Your task to perform on an android device: Open settings on Google Maps Image 0: 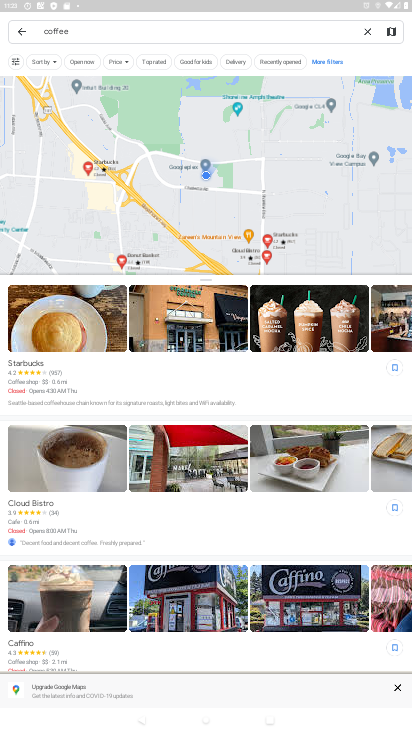
Step 0: press home button
Your task to perform on an android device: Open settings on Google Maps Image 1: 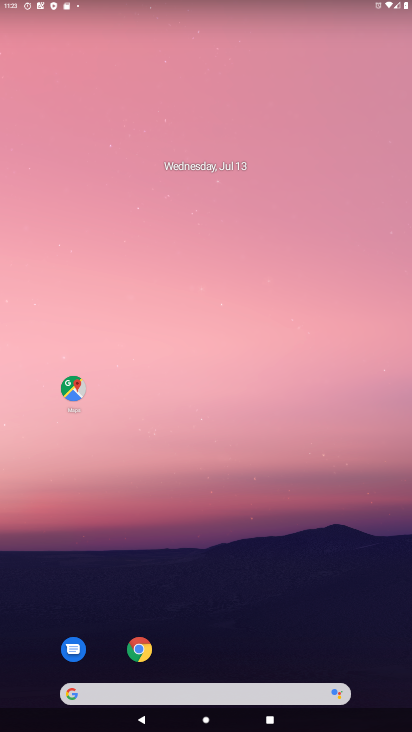
Step 1: click (67, 388)
Your task to perform on an android device: Open settings on Google Maps Image 2: 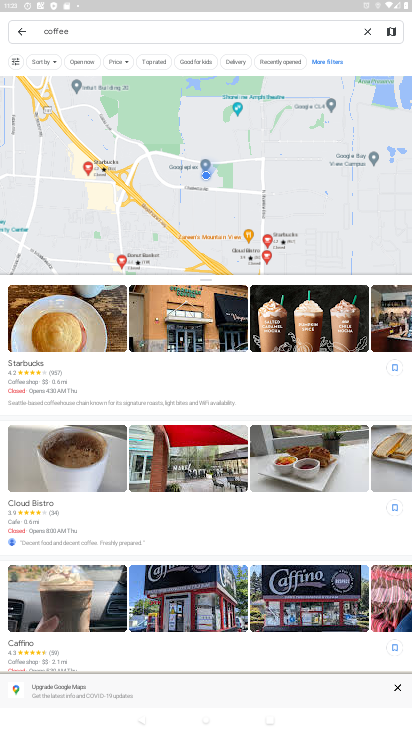
Step 2: press back button
Your task to perform on an android device: Open settings on Google Maps Image 3: 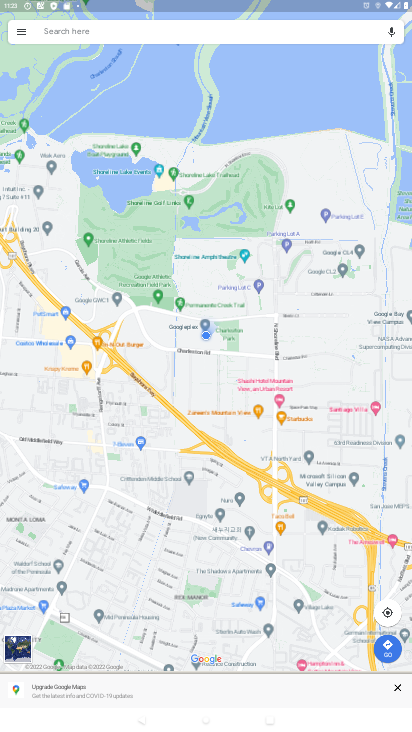
Step 3: click (21, 32)
Your task to perform on an android device: Open settings on Google Maps Image 4: 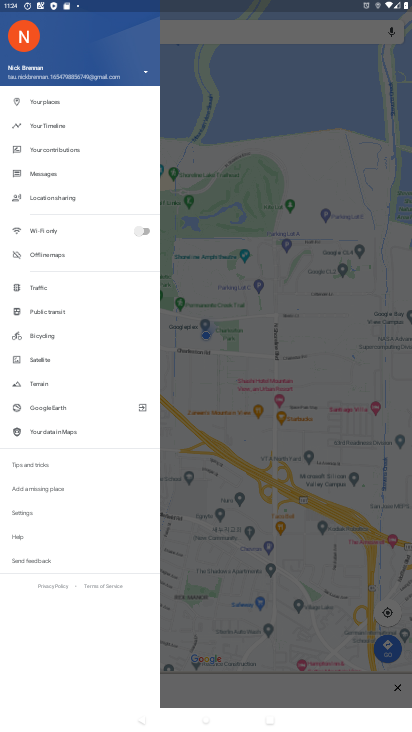
Step 4: click (23, 512)
Your task to perform on an android device: Open settings on Google Maps Image 5: 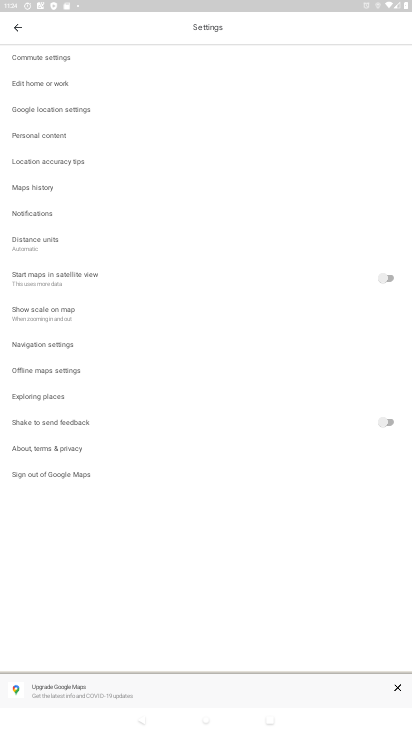
Step 5: task complete